Your task to perform on an android device: turn on the 24-hour format for clock Image 0: 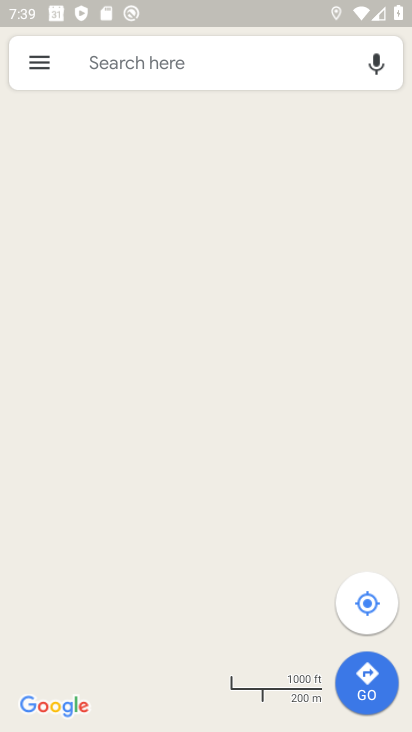
Step 0: press home button
Your task to perform on an android device: turn on the 24-hour format for clock Image 1: 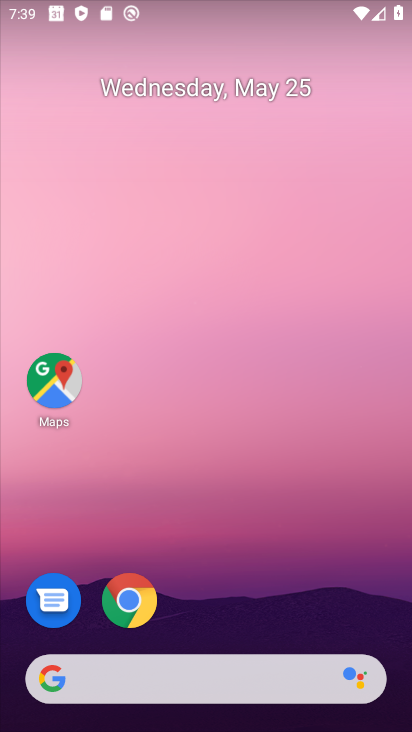
Step 1: drag from (360, 583) to (298, 180)
Your task to perform on an android device: turn on the 24-hour format for clock Image 2: 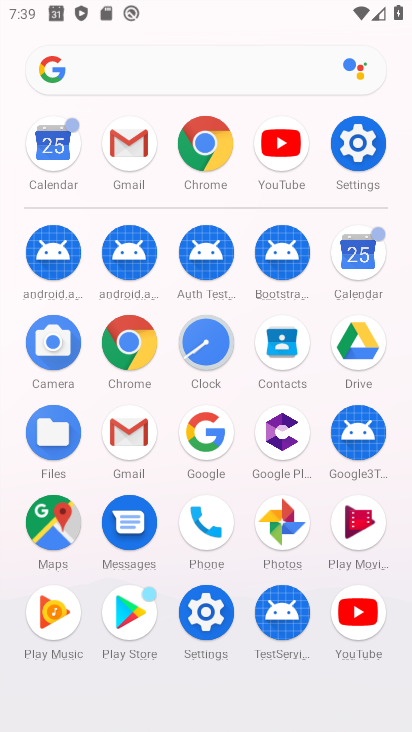
Step 2: click (206, 356)
Your task to perform on an android device: turn on the 24-hour format for clock Image 3: 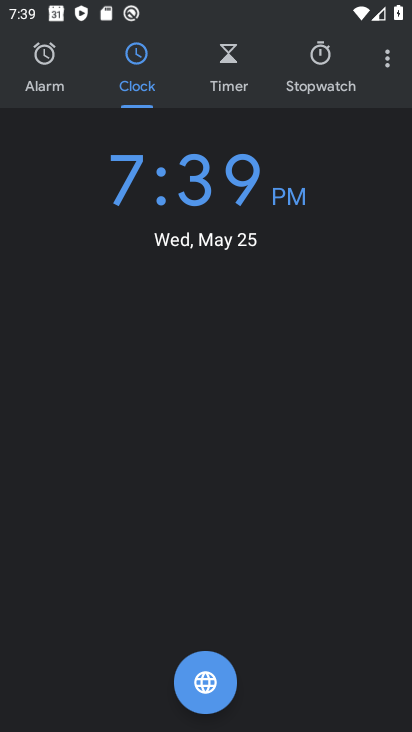
Step 3: click (384, 64)
Your task to perform on an android device: turn on the 24-hour format for clock Image 4: 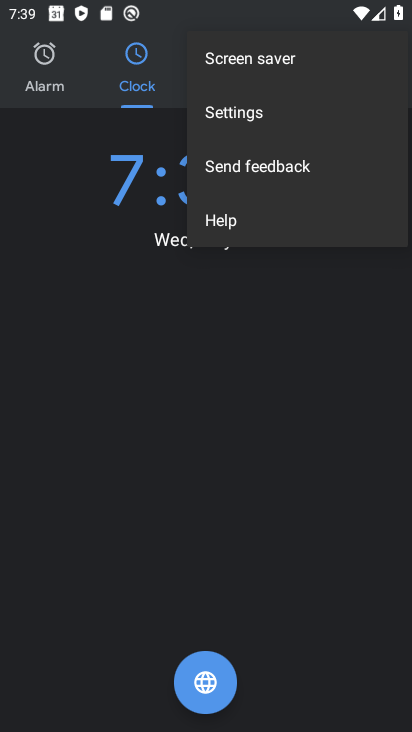
Step 4: click (313, 131)
Your task to perform on an android device: turn on the 24-hour format for clock Image 5: 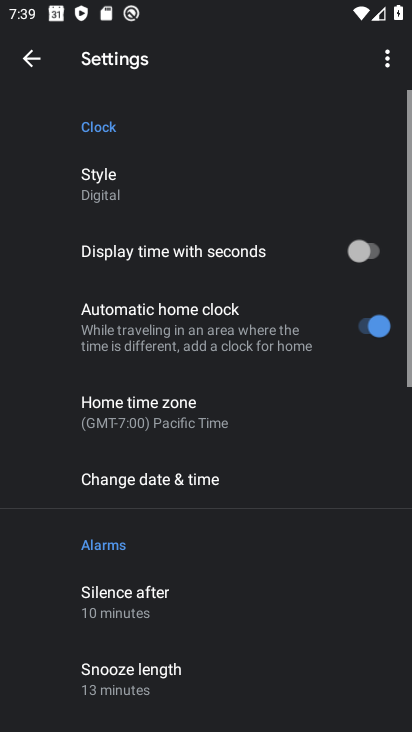
Step 5: click (195, 483)
Your task to perform on an android device: turn on the 24-hour format for clock Image 6: 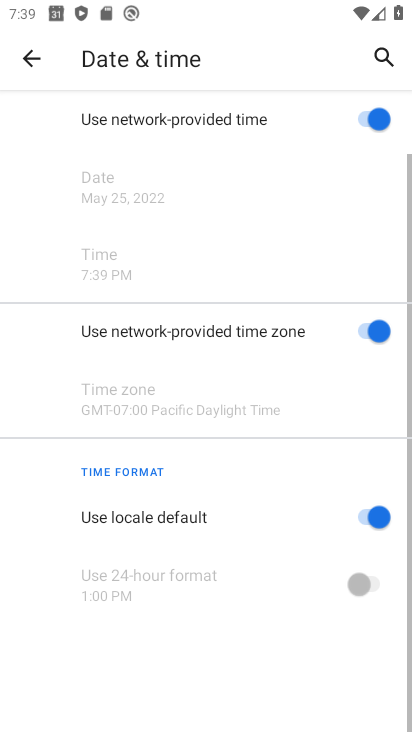
Step 6: drag from (279, 681) to (284, 280)
Your task to perform on an android device: turn on the 24-hour format for clock Image 7: 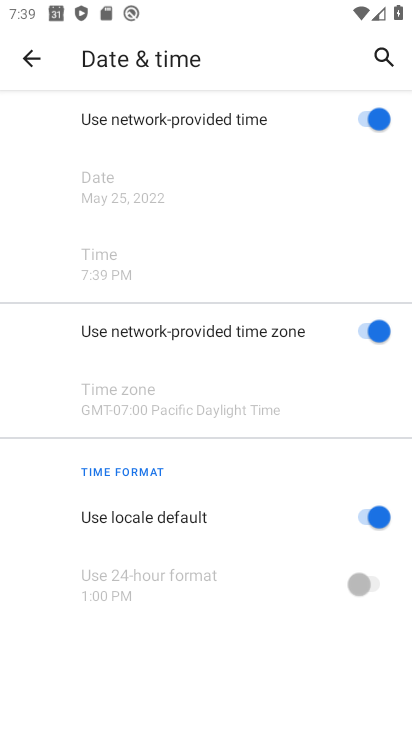
Step 7: click (365, 518)
Your task to perform on an android device: turn on the 24-hour format for clock Image 8: 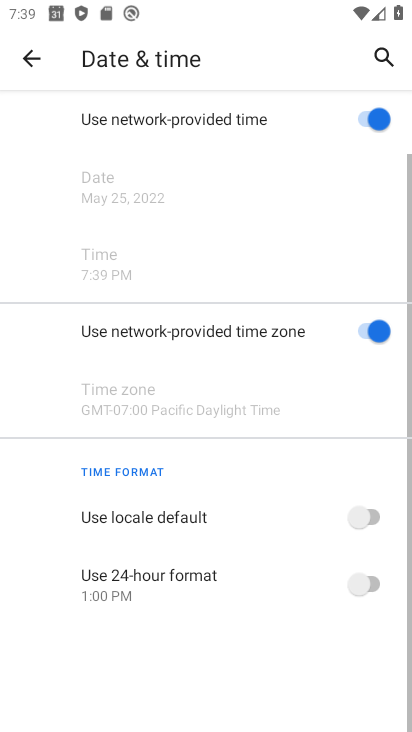
Step 8: click (373, 588)
Your task to perform on an android device: turn on the 24-hour format for clock Image 9: 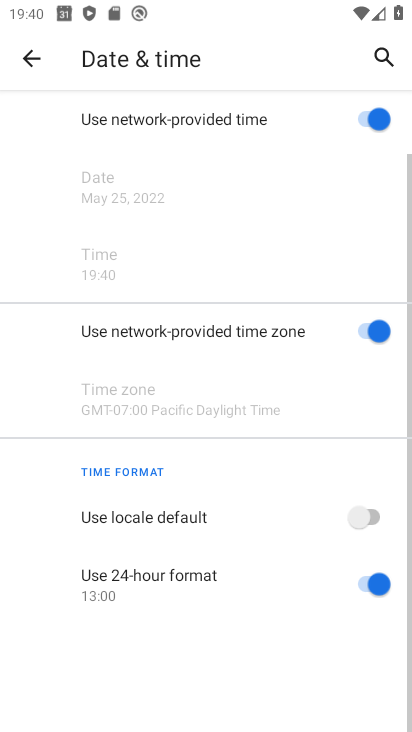
Step 9: task complete